Your task to perform on an android device: turn off airplane mode Image 0: 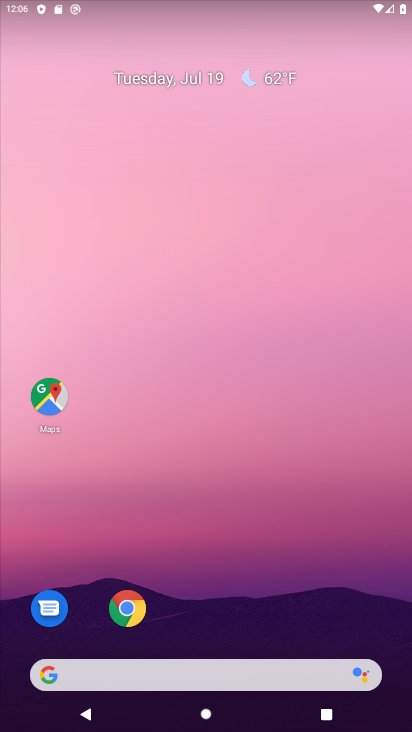
Step 0: press home button
Your task to perform on an android device: turn off airplane mode Image 1: 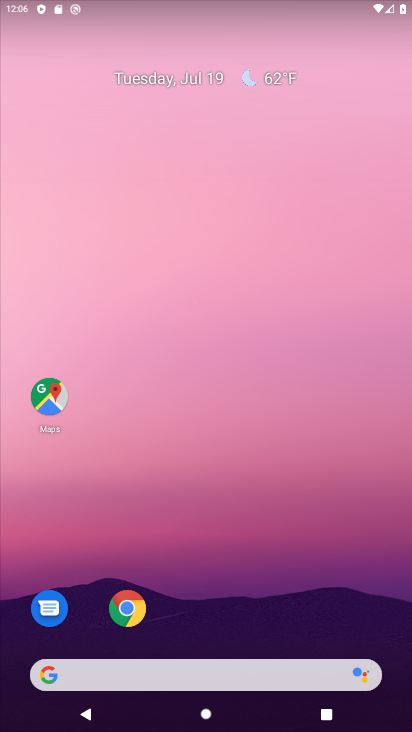
Step 1: task complete